Your task to perform on an android device: find photos in the google photos app Image 0: 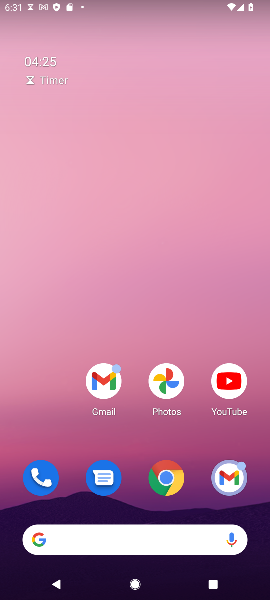
Step 0: click (178, 398)
Your task to perform on an android device: find photos in the google photos app Image 1: 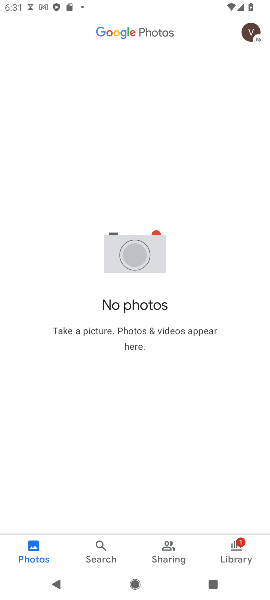
Step 1: task complete